Your task to perform on an android device: What's the weather going to be tomorrow? Image 0: 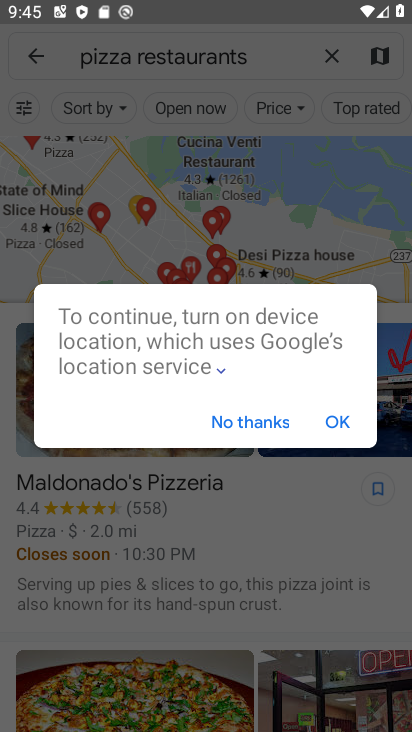
Step 0: press home button
Your task to perform on an android device: What's the weather going to be tomorrow? Image 1: 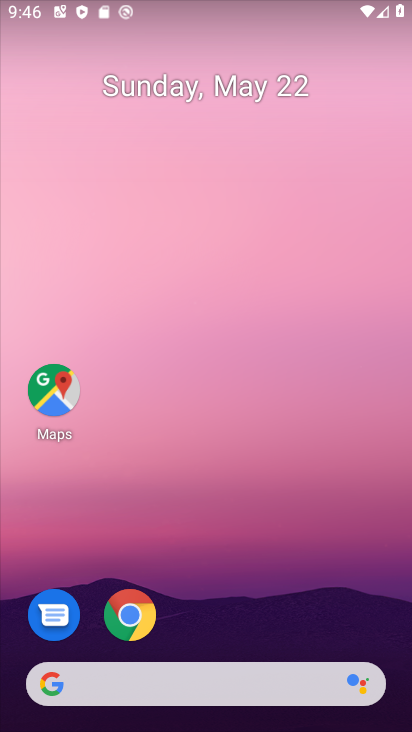
Step 1: click (136, 613)
Your task to perform on an android device: What's the weather going to be tomorrow? Image 2: 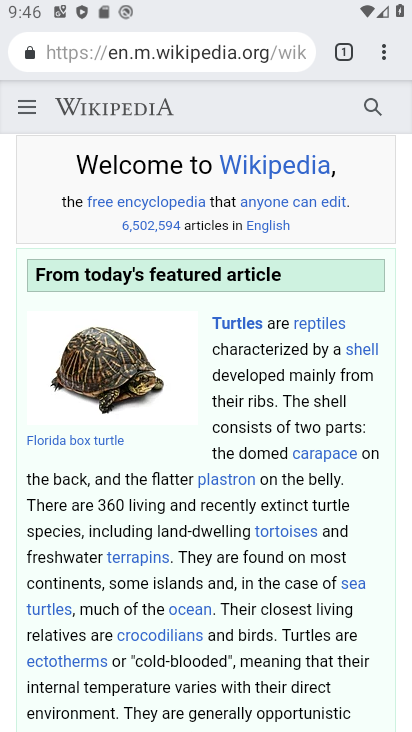
Step 2: click (235, 56)
Your task to perform on an android device: What's the weather going to be tomorrow? Image 3: 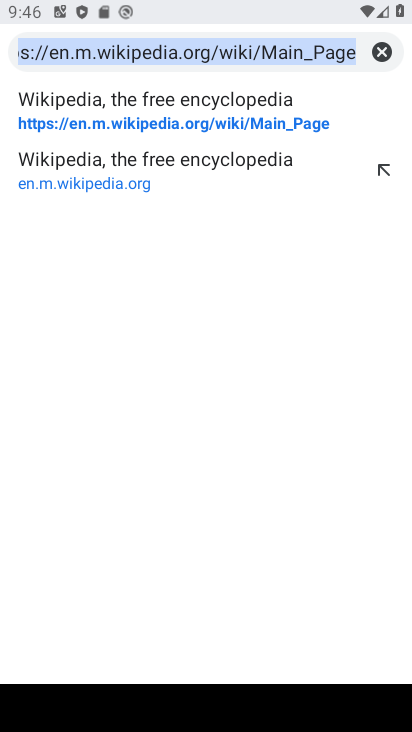
Step 3: click (375, 55)
Your task to perform on an android device: What's the weather going to be tomorrow? Image 4: 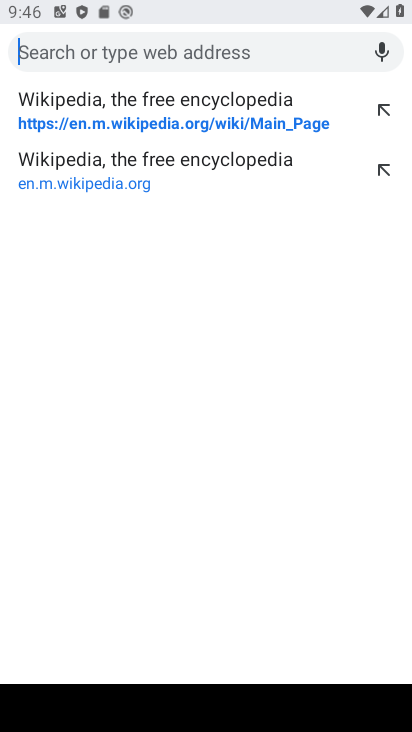
Step 4: type "weather"
Your task to perform on an android device: What's the weather going to be tomorrow? Image 5: 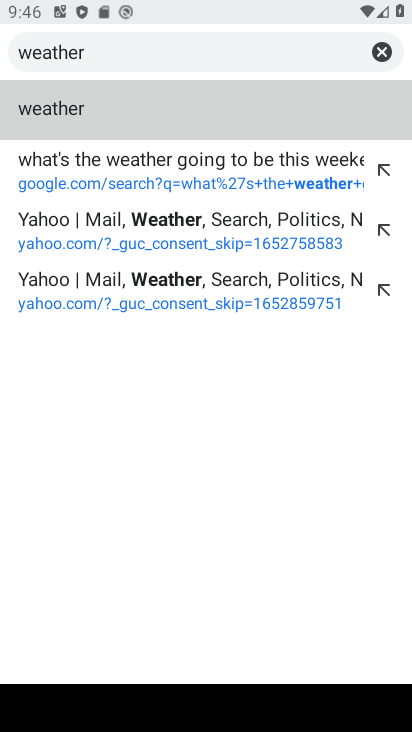
Step 5: click (52, 113)
Your task to perform on an android device: What's the weather going to be tomorrow? Image 6: 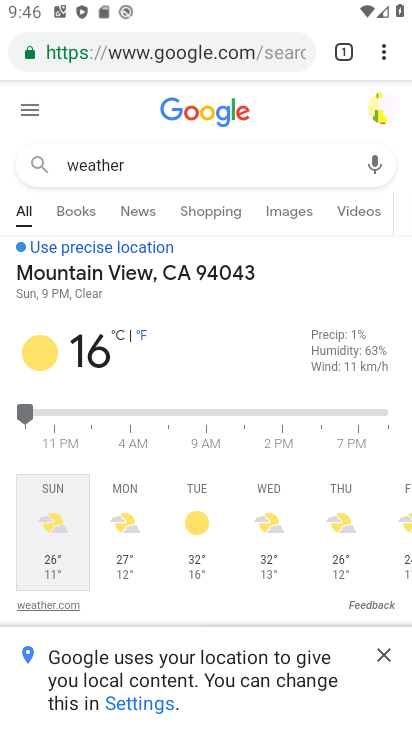
Step 6: click (133, 522)
Your task to perform on an android device: What's the weather going to be tomorrow? Image 7: 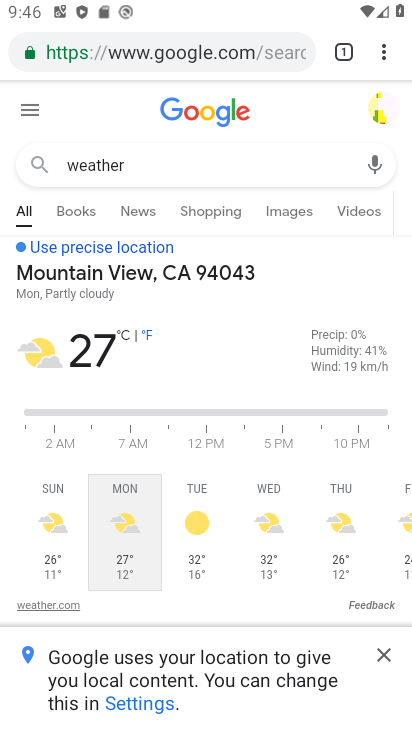
Step 7: task complete